Your task to perform on an android device: Open calendar and show me the first week of next month Image 0: 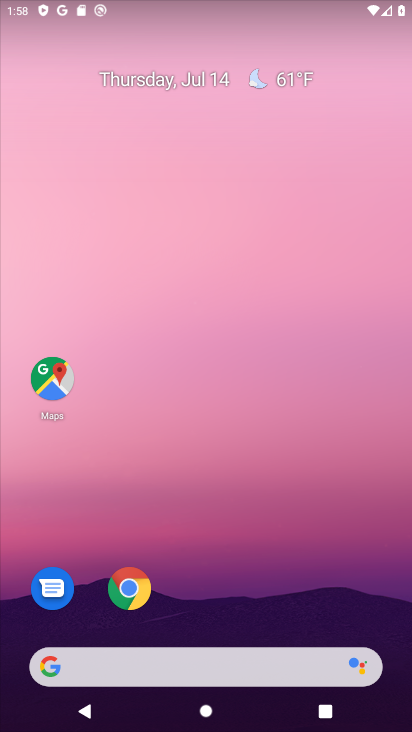
Step 0: press home button
Your task to perform on an android device: Open calendar and show me the first week of next month Image 1: 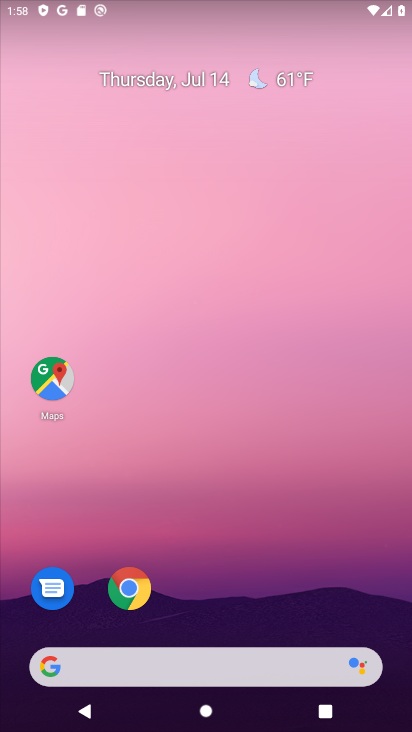
Step 1: drag from (240, 581) to (291, 117)
Your task to perform on an android device: Open calendar and show me the first week of next month Image 2: 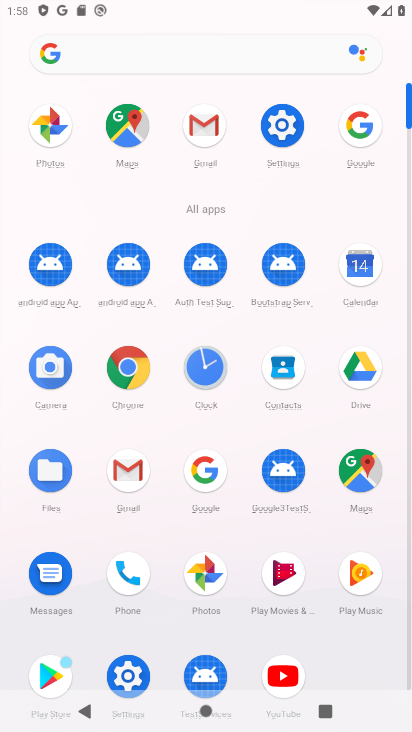
Step 2: click (361, 262)
Your task to perform on an android device: Open calendar and show me the first week of next month Image 3: 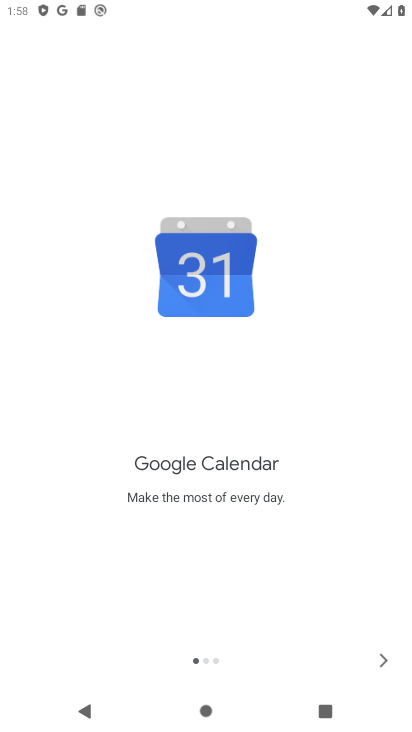
Step 3: click (384, 659)
Your task to perform on an android device: Open calendar and show me the first week of next month Image 4: 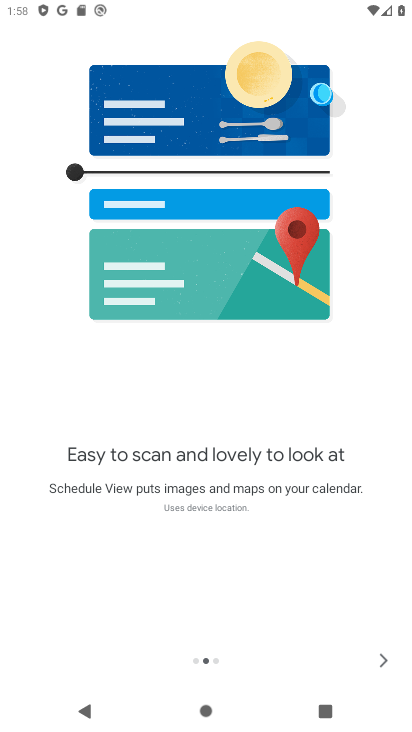
Step 4: click (384, 659)
Your task to perform on an android device: Open calendar and show me the first week of next month Image 5: 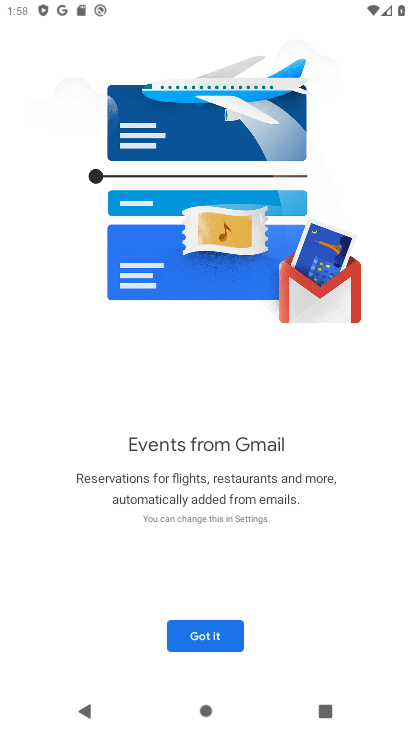
Step 5: click (215, 636)
Your task to perform on an android device: Open calendar and show me the first week of next month Image 6: 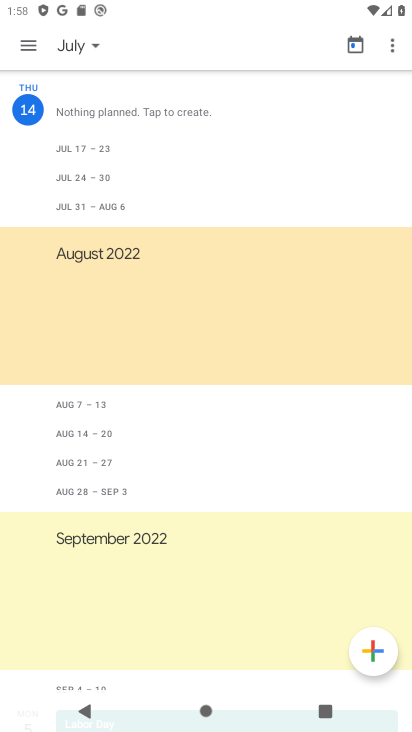
Step 6: click (91, 45)
Your task to perform on an android device: Open calendar and show me the first week of next month Image 7: 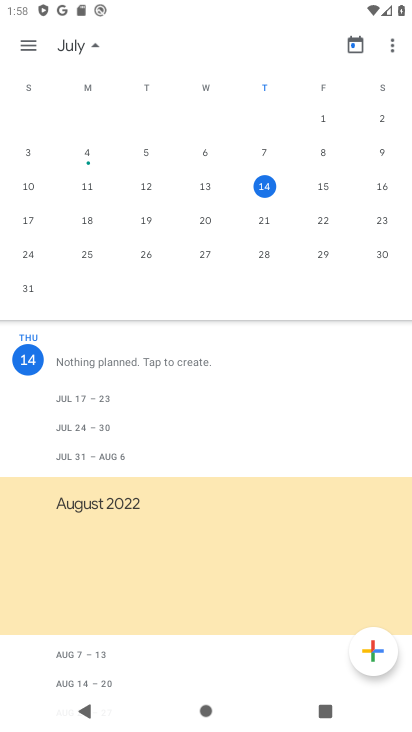
Step 7: drag from (375, 297) to (14, 217)
Your task to perform on an android device: Open calendar and show me the first week of next month Image 8: 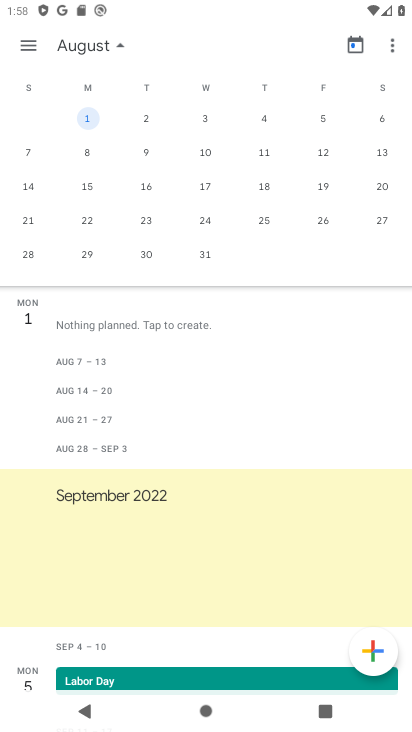
Step 8: click (265, 118)
Your task to perform on an android device: Open calendar and show me the first week of next month Image 9: 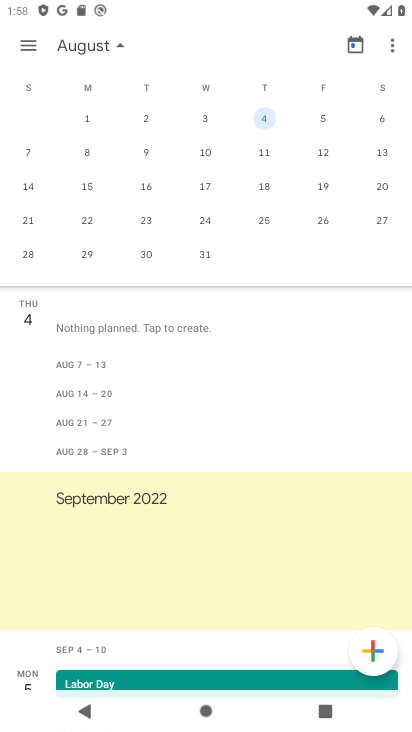
Step 9: task complete